Your task to perform on an android device: Find coffee shops on Maps Image 0: 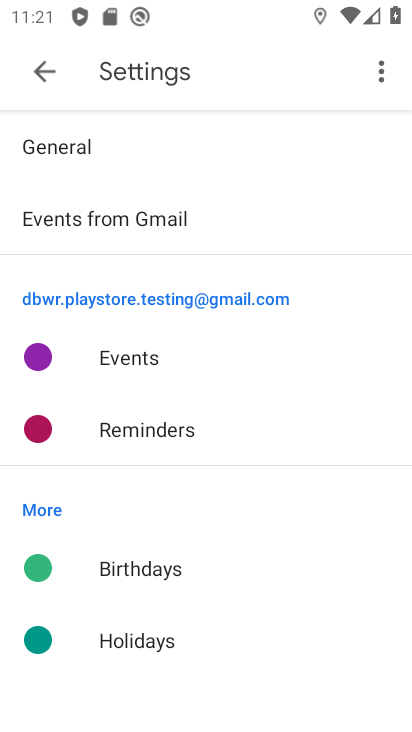
Step 0: press home button
Your task to perform on an android device: Find coffee shops on Maps Image 1: 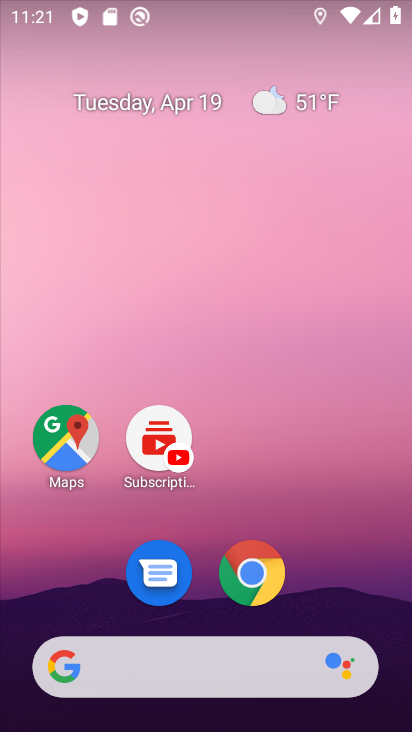
Step 1: click (68, 439)
Your task to perform on an android device: Find coffee shops on Maps Image 2: 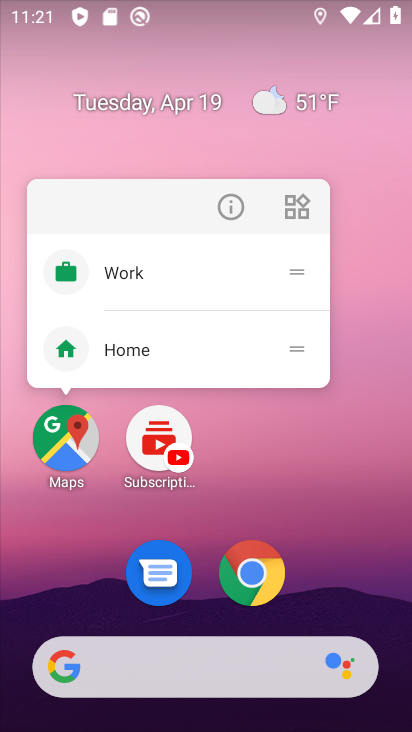
Step 2: click (72, 431)
Your task to perform on an android device: Find coffee shops on Maps Image 3: 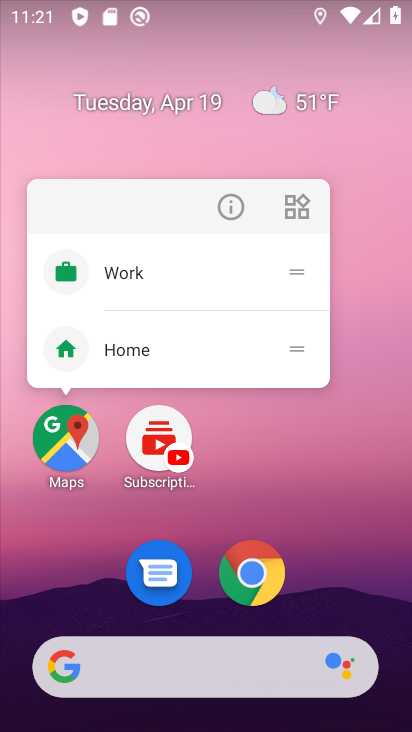
Step 3: click (72, 431)
Your task to perform on an android device: Find coffee shops on Maps Image 4: 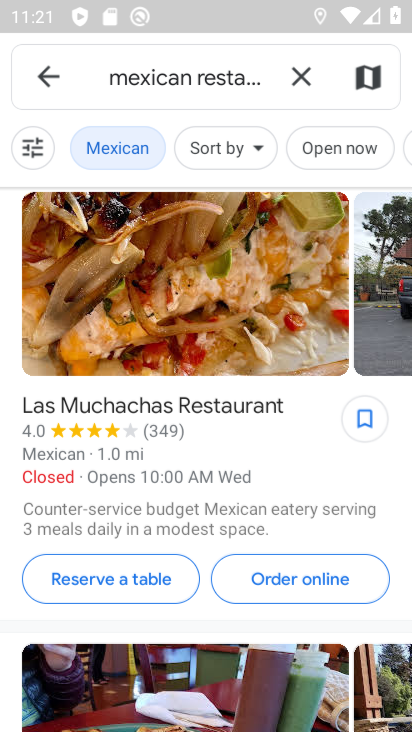
Step 4: click (300, 70)
Your task to perform on an android device: Find coffee shops on Maps Image 5: 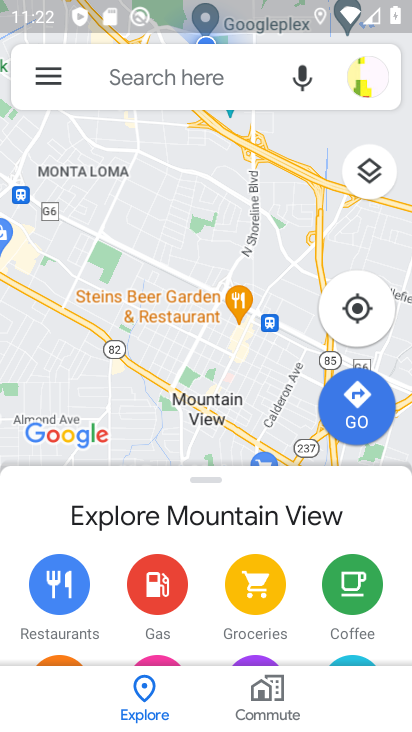
Step 5: click (196, 77)
Your task to perform on an android device: Find coffee shops on Maps Image 6: 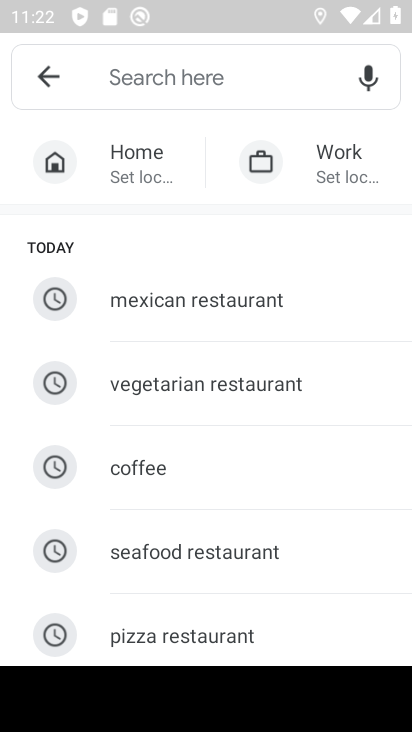
Step 6: click (128, 468)
Your task to perform on an android device: Find coffee shops on Maps Image 7: 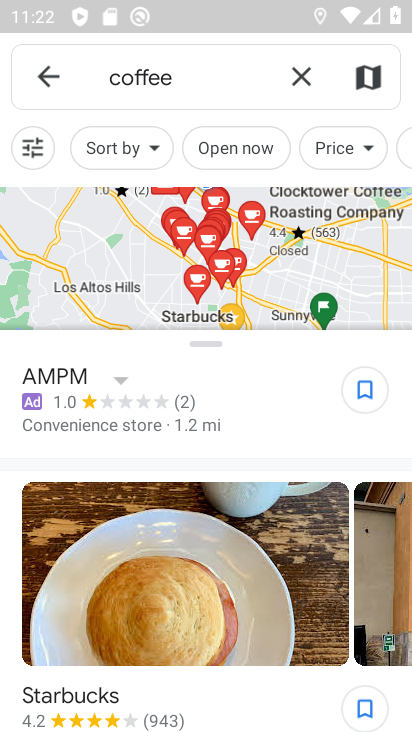
Step 7: task complete